Your task to perform on an android device: When is my next meeting? Image 0: 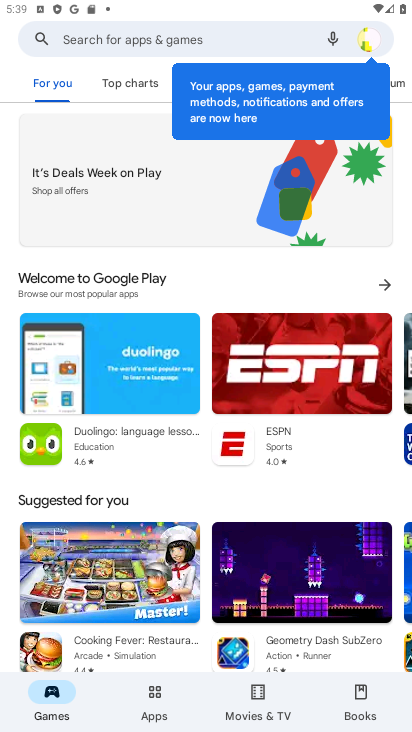
Step 0: press home button
Your task to perform on an android device: When is my next meeting? Image 1: 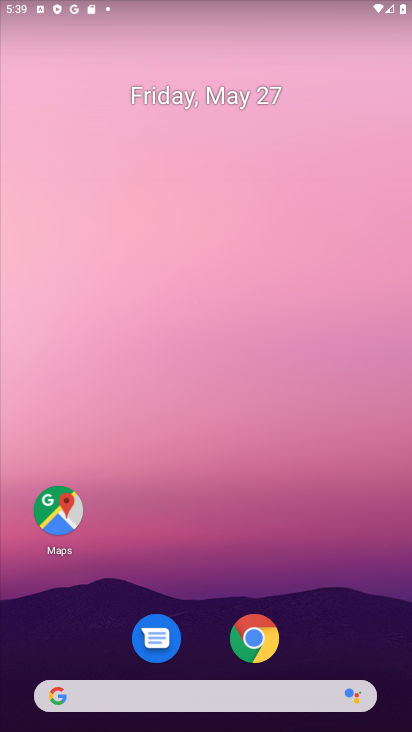
Step 1: click (166, 98)
Your task to perform on an android device: When is my next meeting? Image 2: 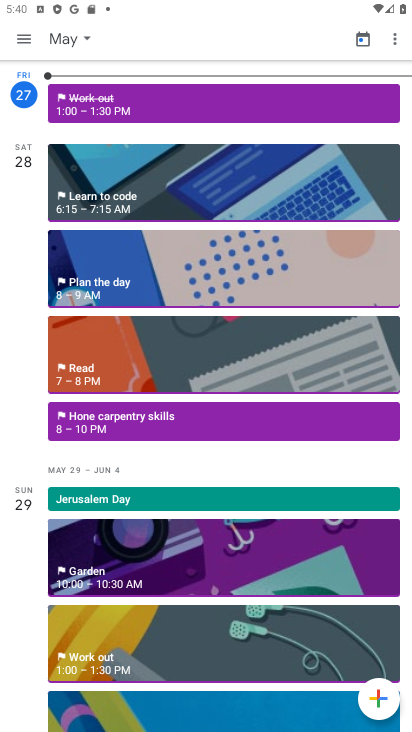
Step 2: task complete